Your task to perform on an android device: Go to internet settings Image 0: 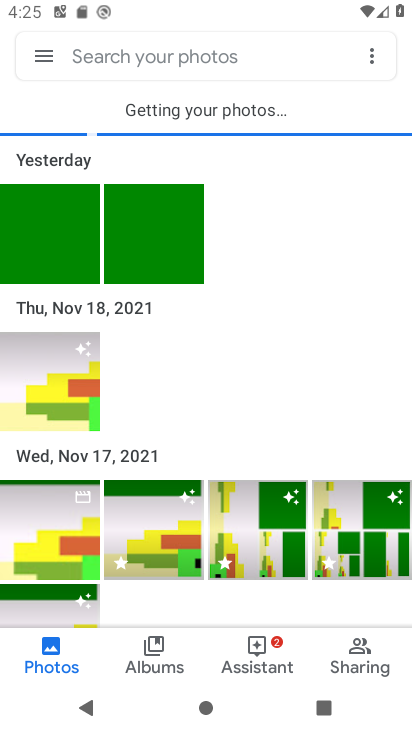
Step 0: press home button
Your task to perform on an android device: Go to internet settings Image 1: 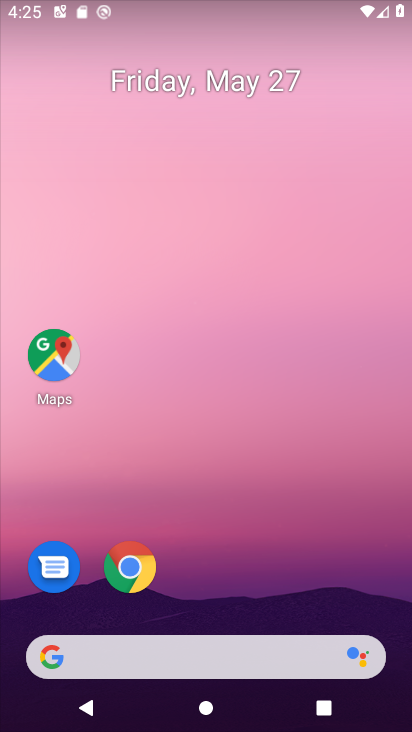
Step 1: drag from (225, 609) to (286, 43)
Your task to perform on an android device: Go to internet settings Image 2: 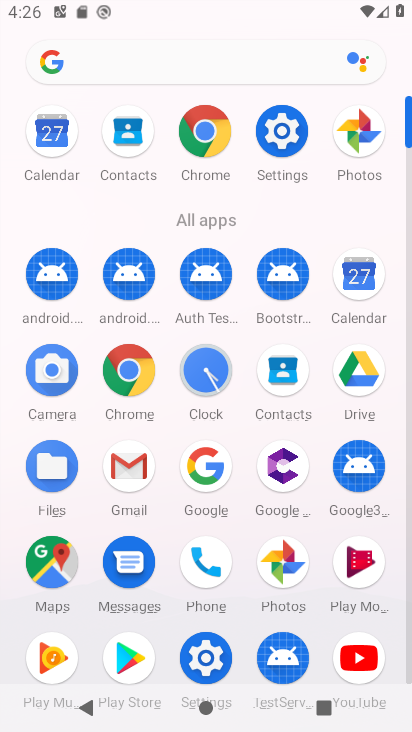
Step 2: click (279, 140)
Your task to perform on an android device: Go to internet settings Image 3: 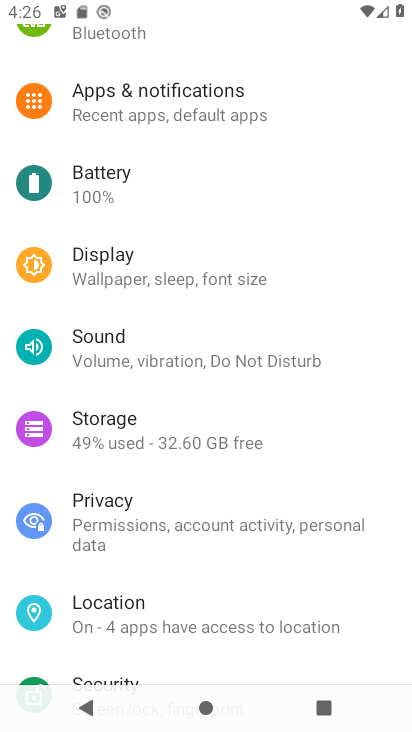
Step 3: drag from (207, 204) to (280, 690)
Your task to perform on an android device: Go to internet settings Image 4: 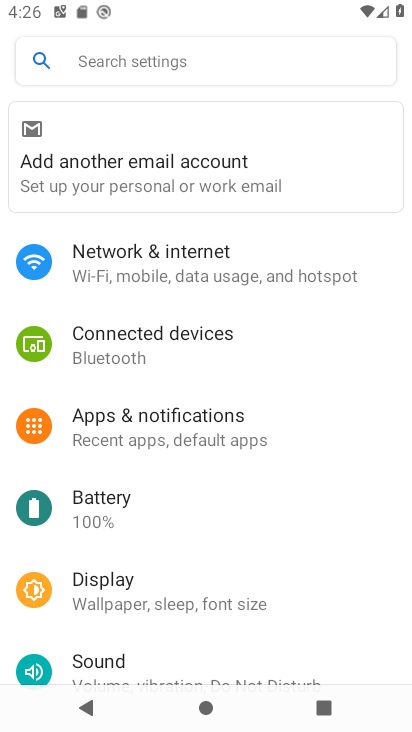
Step 4: click (262, 267)
Your task to perform on an android device: Go to internet settings Image 5: 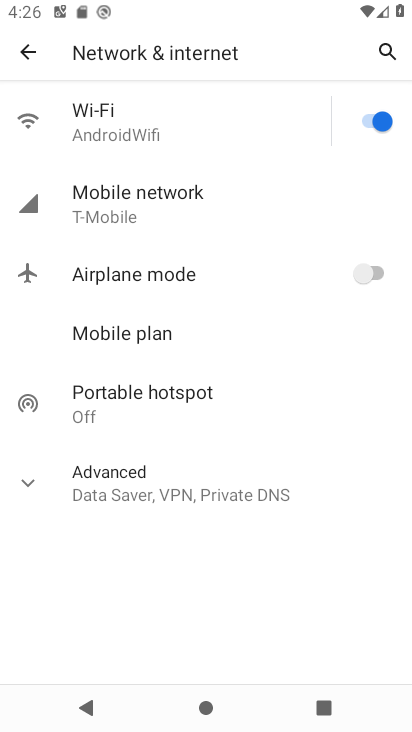
Step 5: click (172, 208)
Your task to perform on an android device: Go to internet settings Image 6: 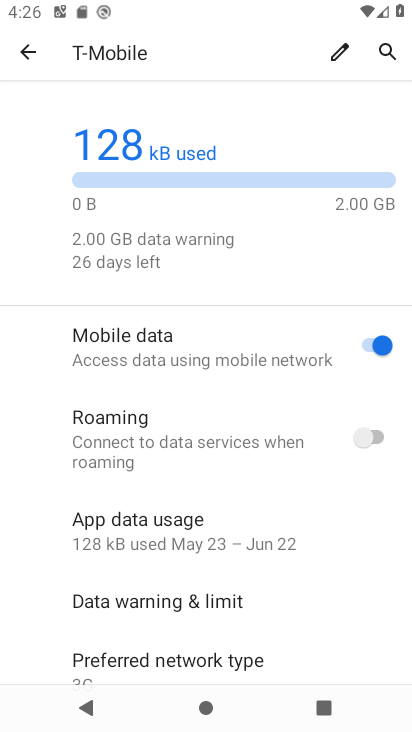
Step 6: task complete